Your task to perform on an android device: Open the map Image 0: 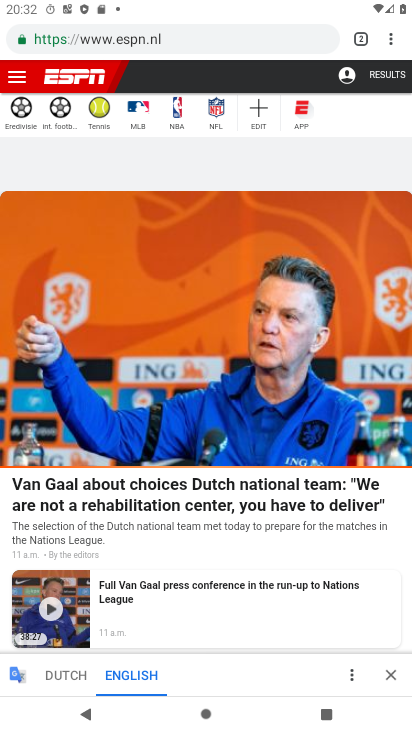
Step 0: press home button
Your task to perform on an android device: Open the map Image 1: 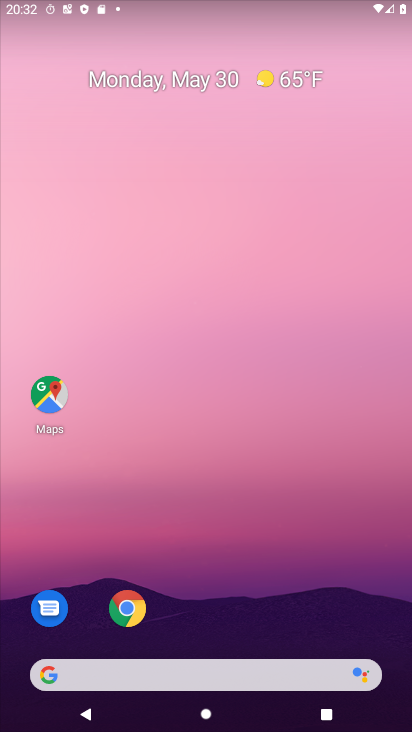
Step 1: click (55, 416)
Your task to perform on an android device: Open the map Image 2: 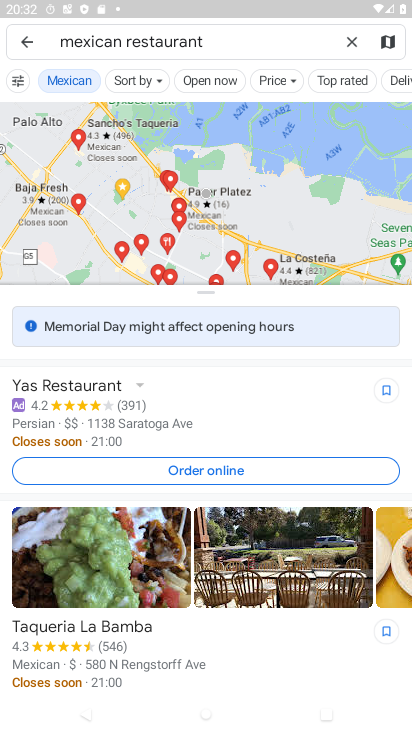
Step 2: task complete